Your task to perform on an android device: How much does the HisenseTV cost? Image 0: 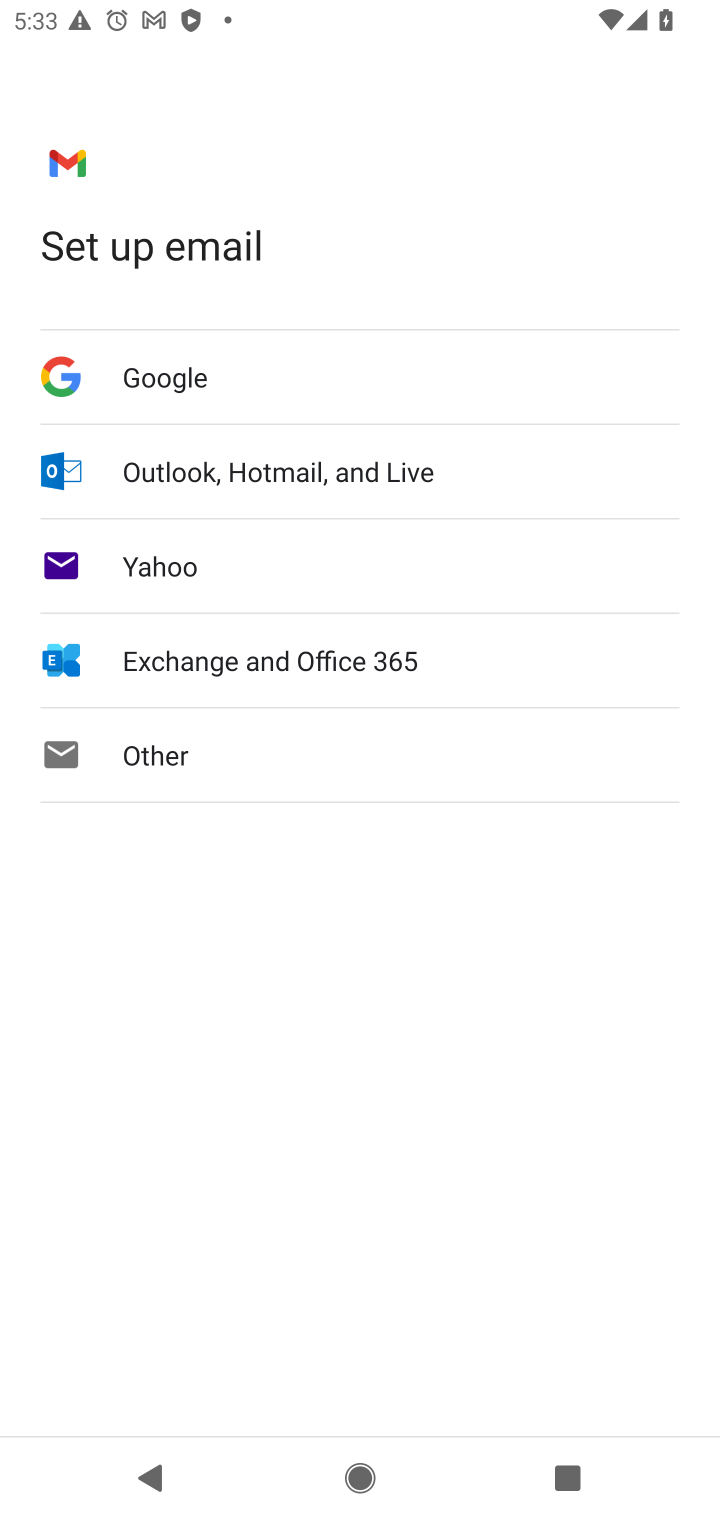
Step 0: press home button
Your task to perform on an android device: How much does the HisenseTV cost? Image 1: 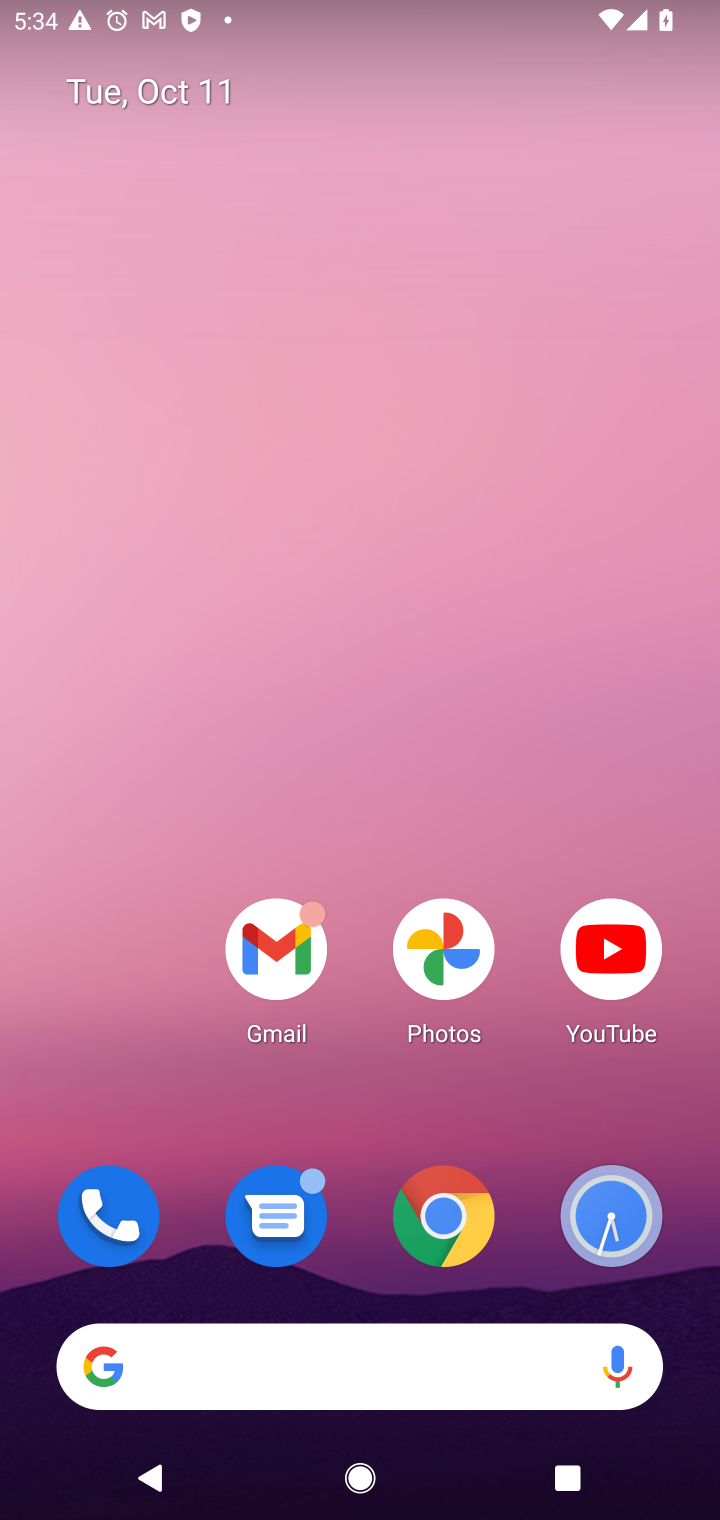
Step 1: click (429, 1254)
Your task to perform on an android device: How much does the HisenseTV cost? Image 2: 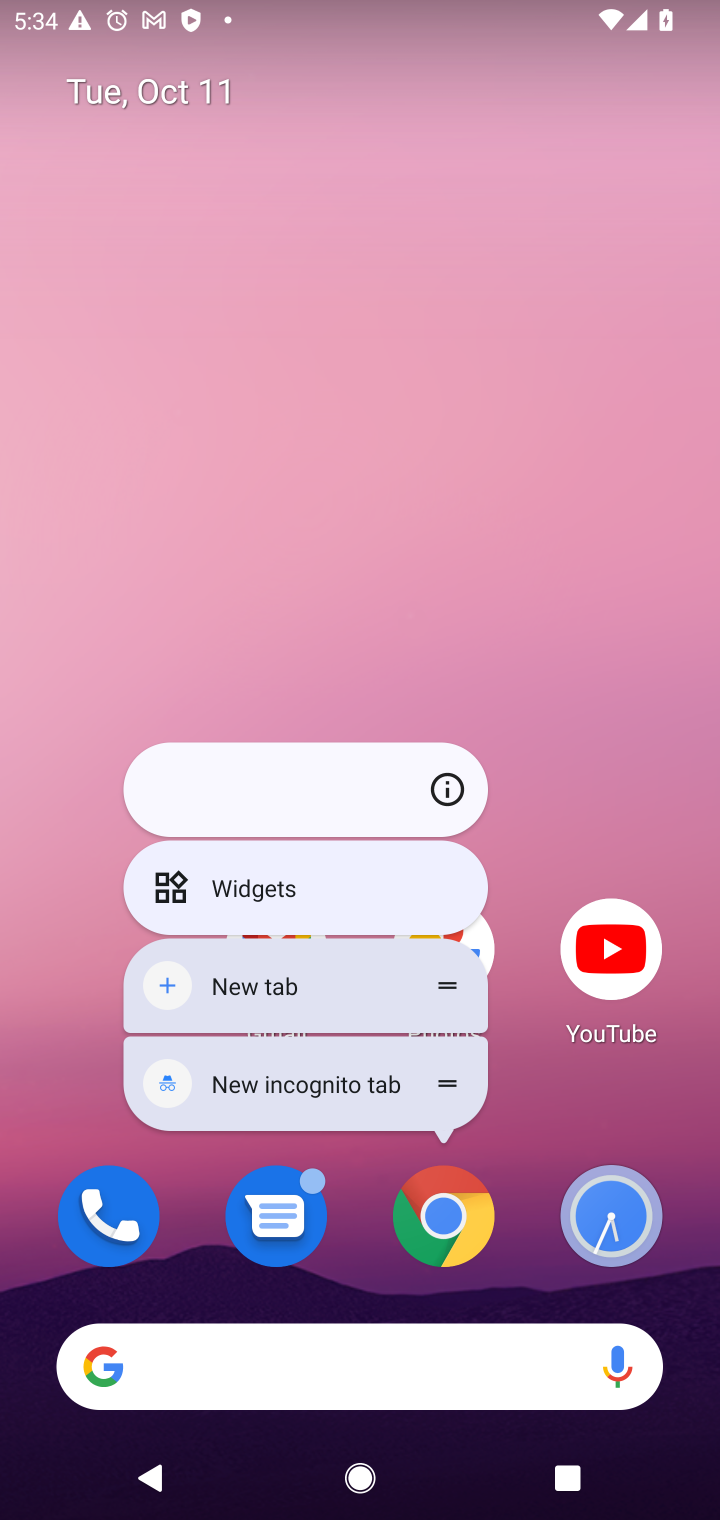
Step 2: click (438, 1216)
Your task to perform on an android device: How much does the HisenseTV cost? Image 3: 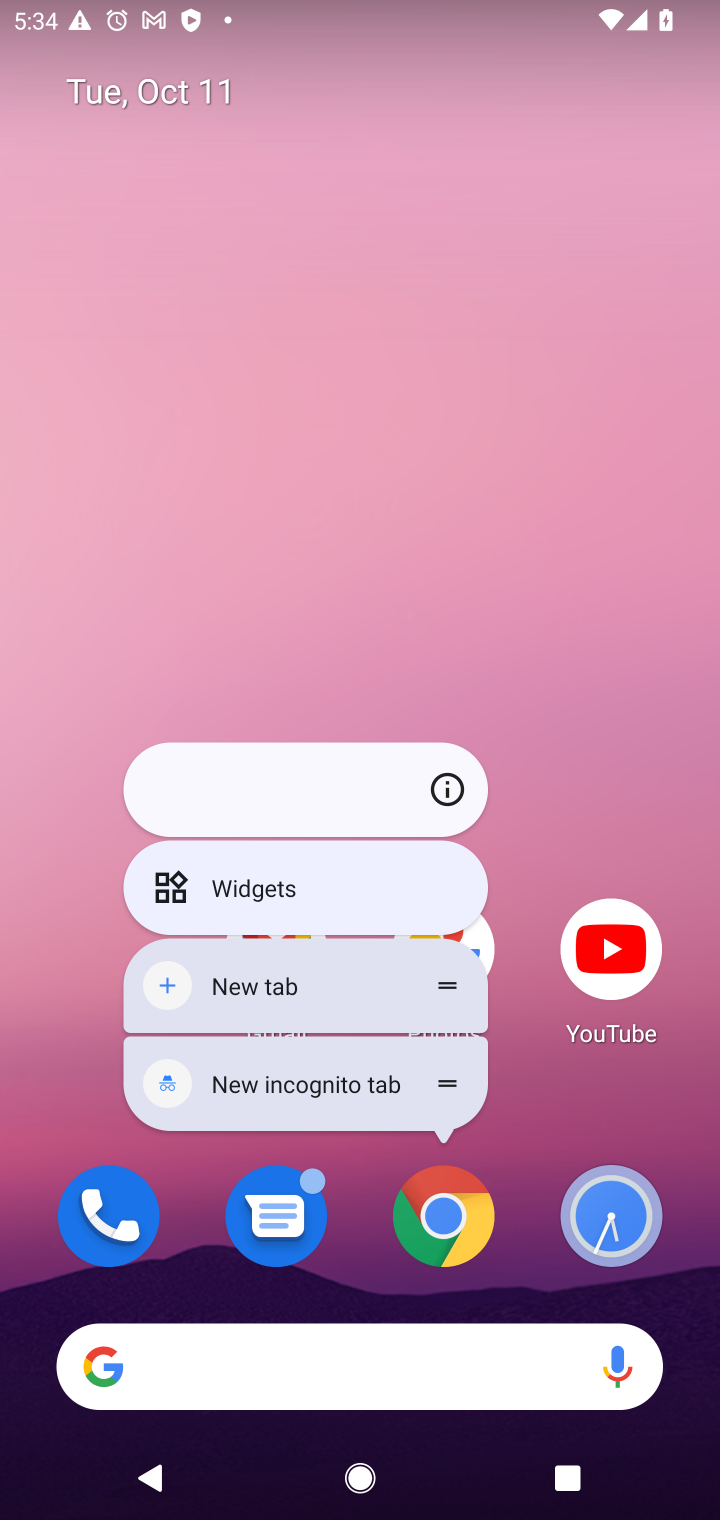
Step 3: click (438, 1216)
Your task to perform on an android device: How much does the HisenseTV cost? Image 4: 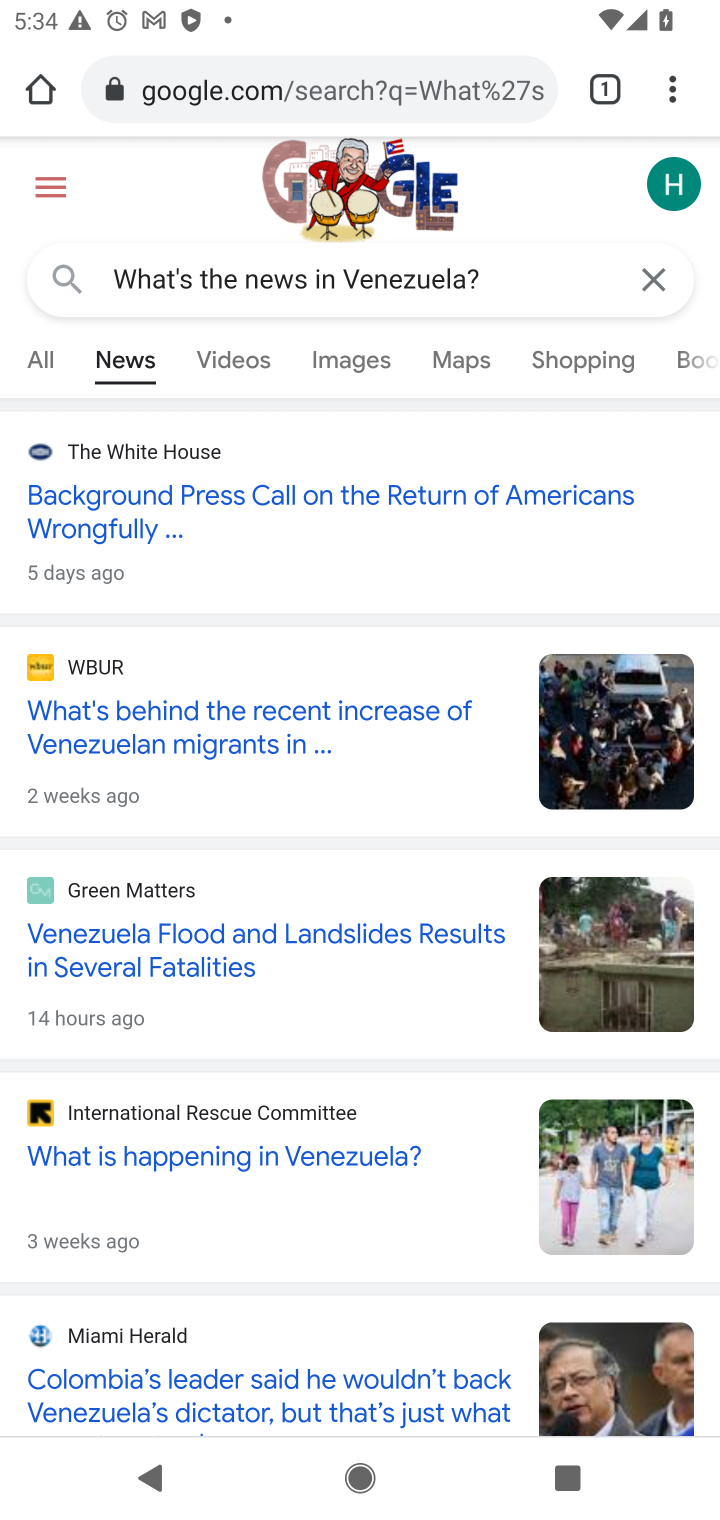
Step 4: type "How much does the HisenseTV cost?"
Your task to perform on an android device: How much does the HisenseTV cost? Image 5: 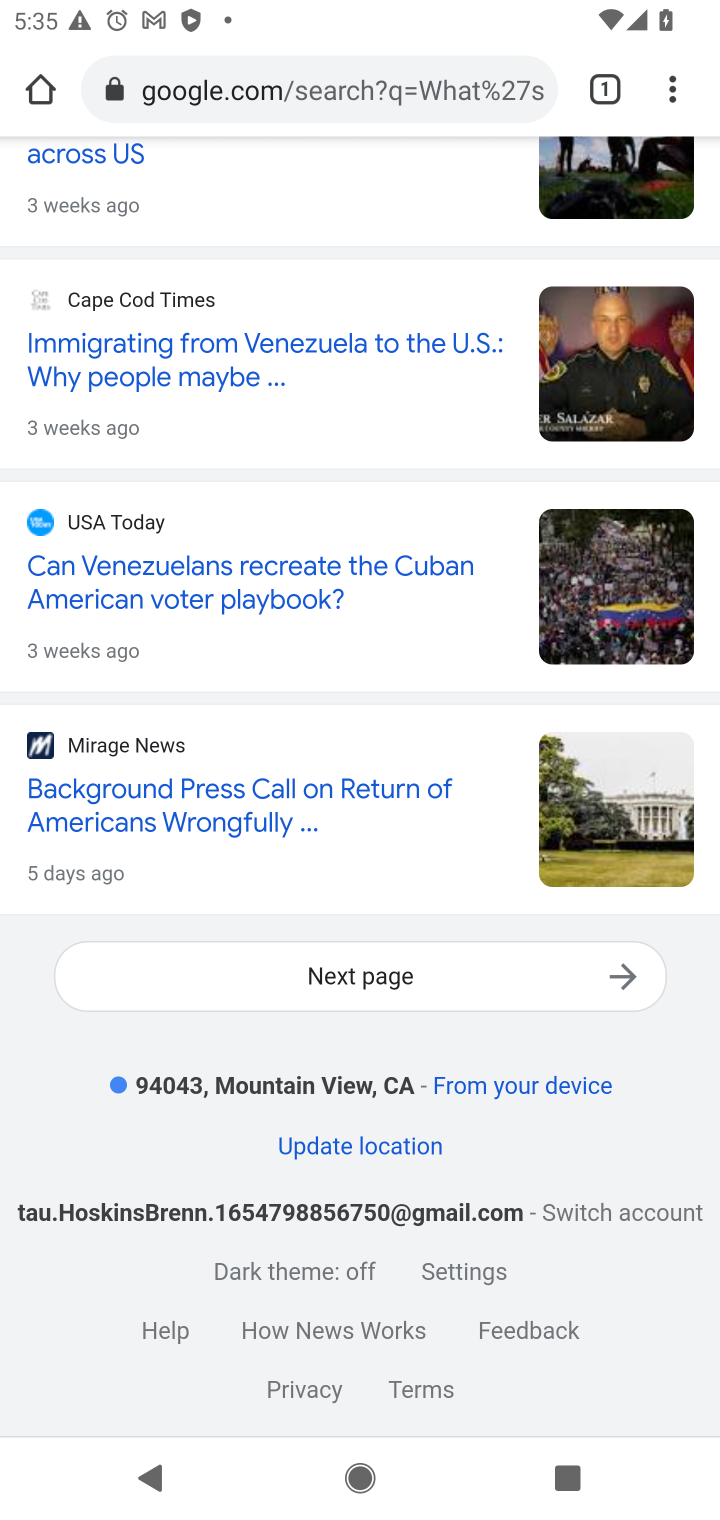
Step 5: type "How much does the HisenseTV cost?"
Your task to perform on an android device: How much does the HisenseTV cost? Image 6: 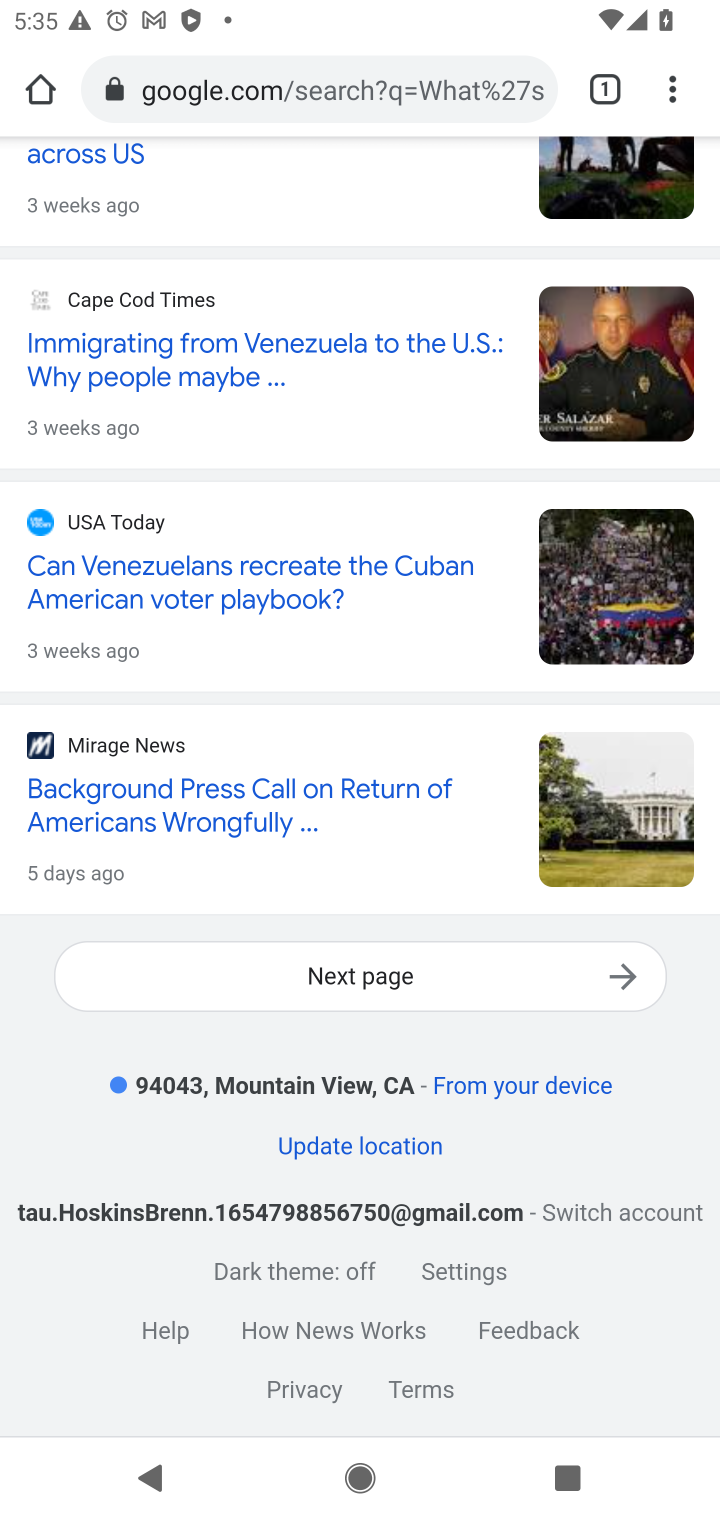
Step 6: click (351, 64)
Your task to perform on an android device: How much does the HisenseTV cost? Image 7: 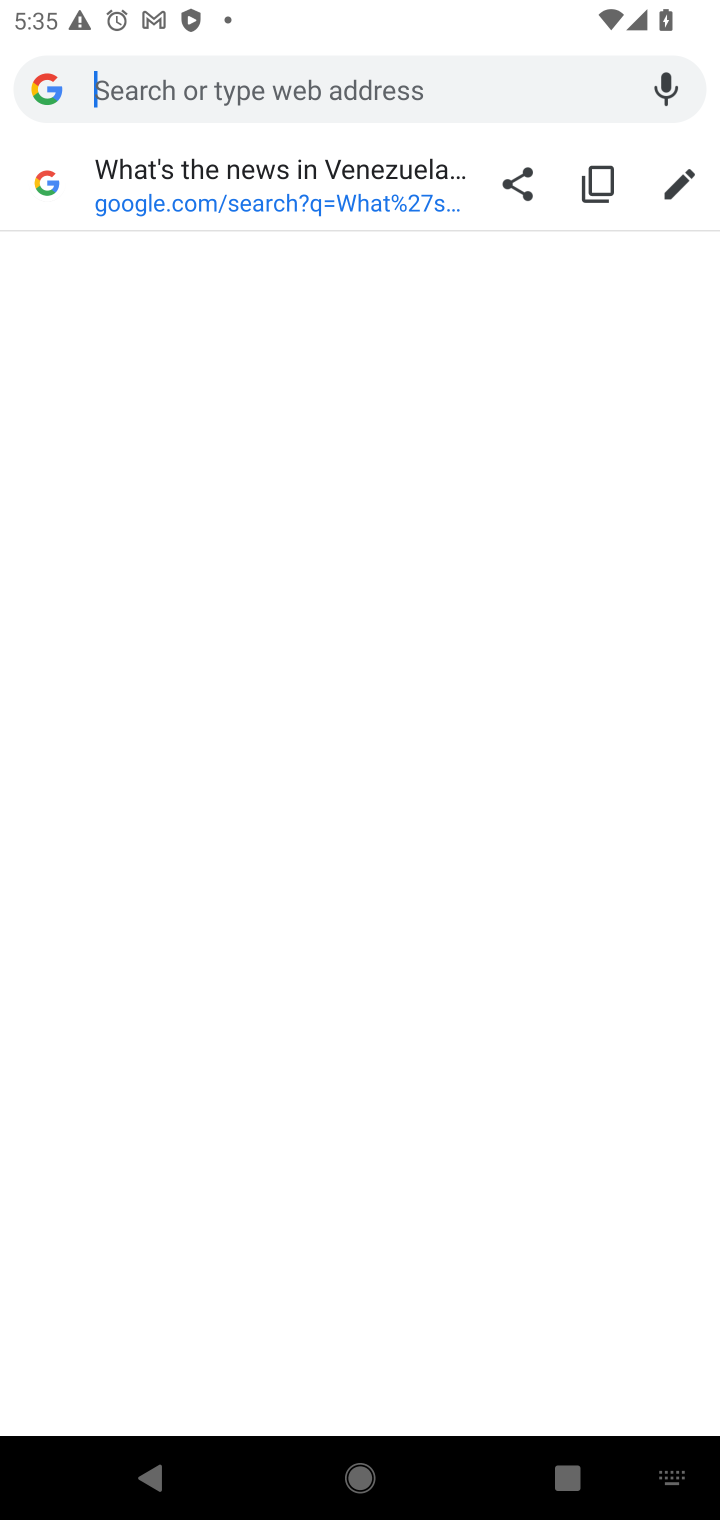
Step 7: type "How much does the HisenseTV cost?"
Your task to perform on an android device: How much does the HisenseTV cost? Image 8: 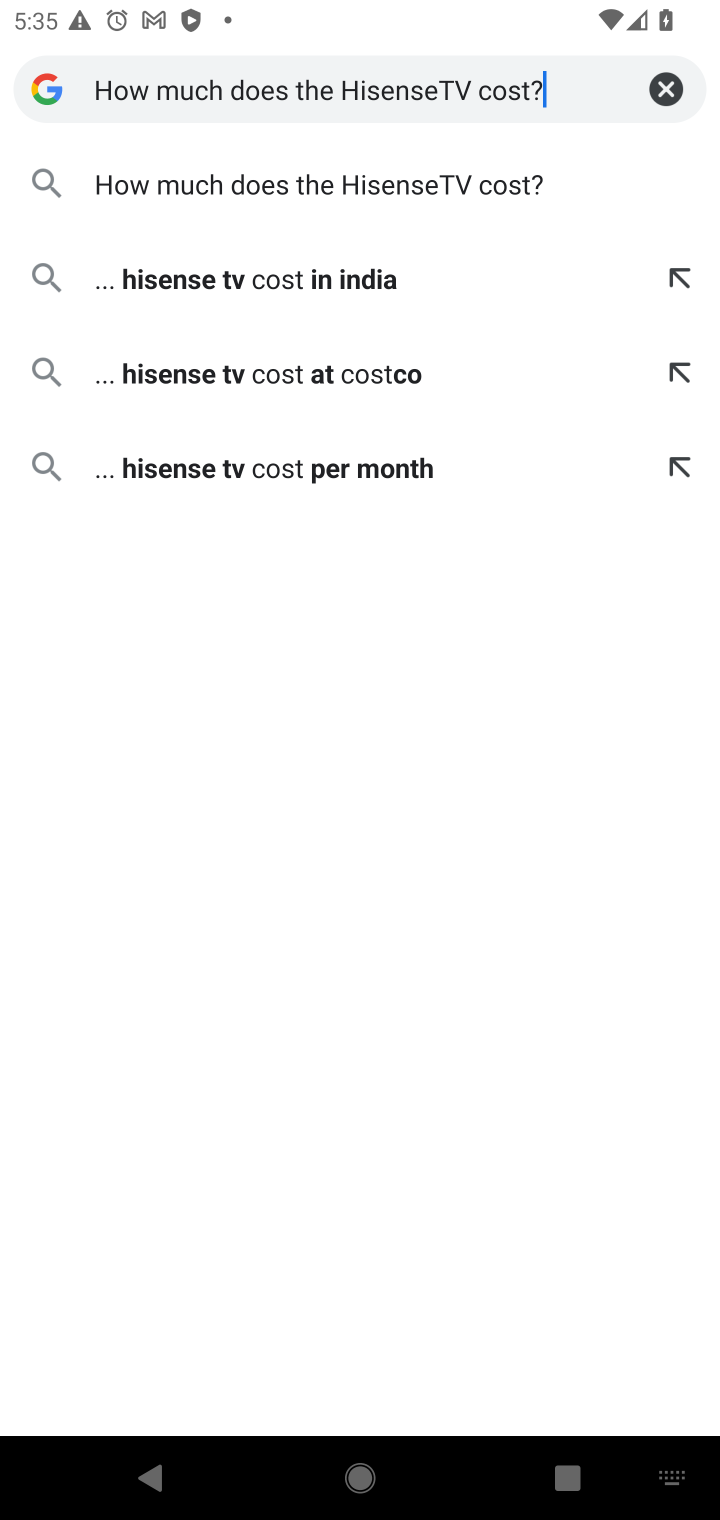
Step 8: press enter
Your task to perform on an android device: How much does the HisenseTV cost? Image 9: 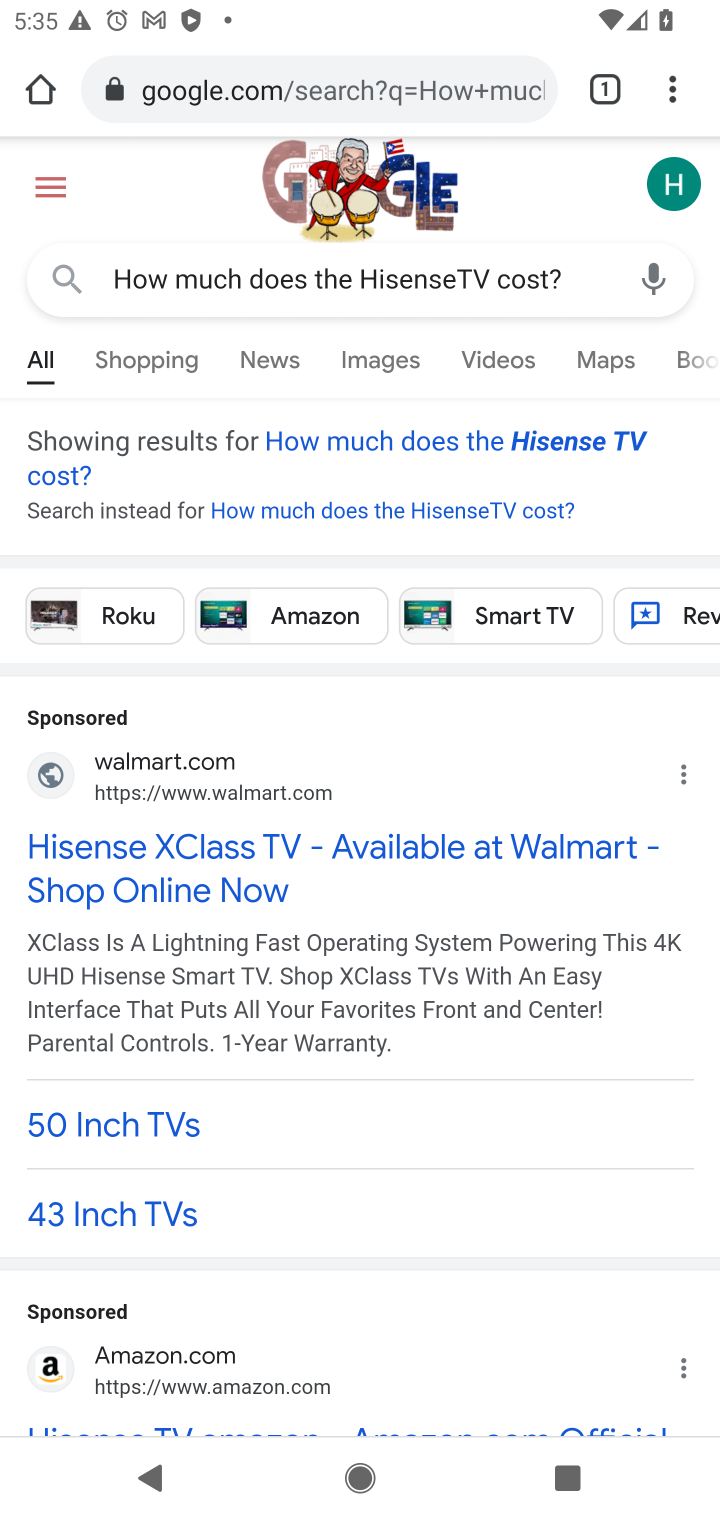
Step 9: click (235, 841)
Your task to perform on an android device: How much does the HisenseTV cost? Image 10: 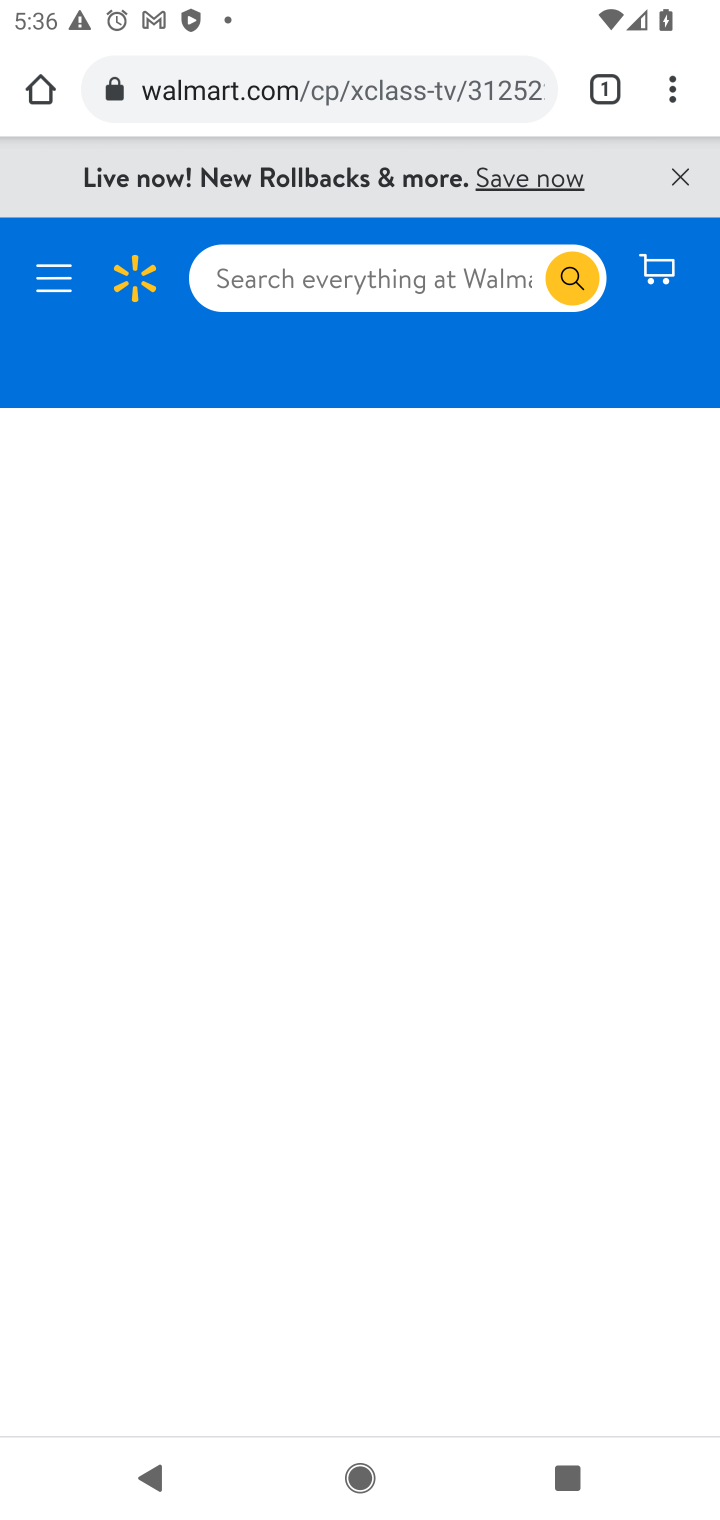
Step 10: task complete